Your task to perform on an android device: Open settings Image 0: 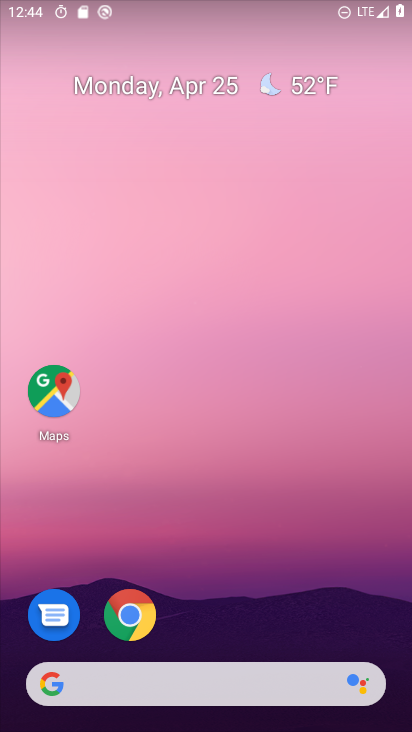
Step 0: drag from (212, 619) to (212, 8)
Your task to perform on an android device: Open settings Image 1: 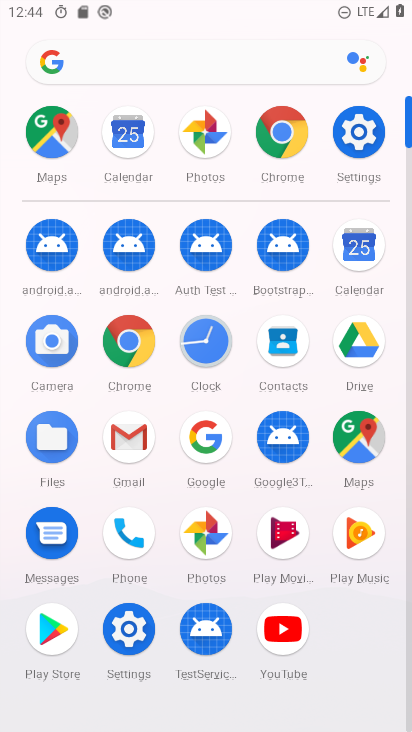
Step 1: click (363, 158)
Your task to perform on an android device: Open settings Image 2: 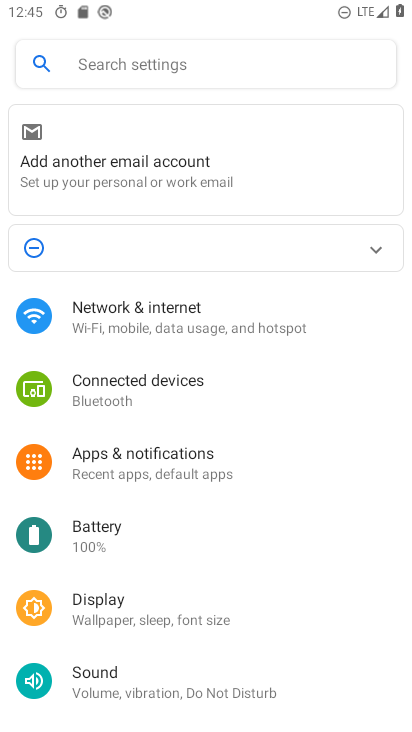
Step 2: task complete